Your task to perform on an android device: change the clock display to show seconds Image 0: 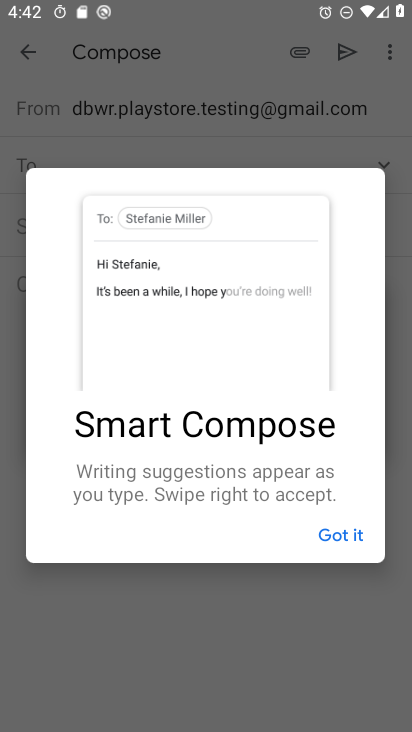
Step 0: press home button
Your task to perform on an android device: change the clock display to show seconds Image 1: 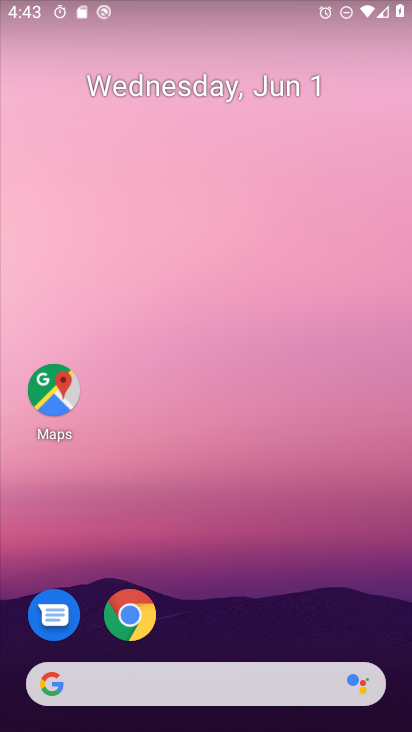
Step 1: drag from (266, 550) to (242, 155)
Your task to perform on an android device: change the clock display to show seconds Image 2: 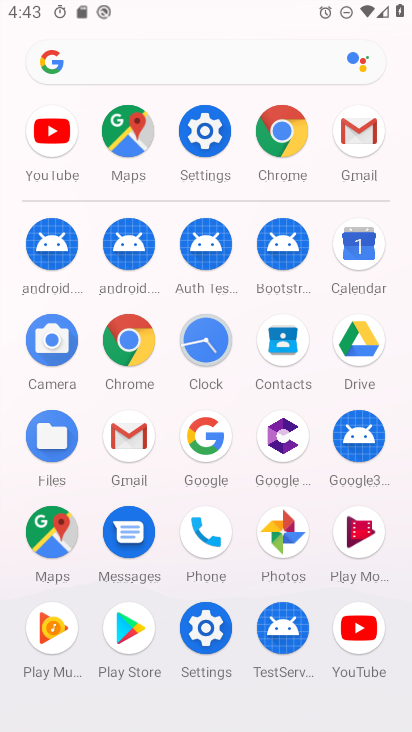
Step 2: click (199, 353)
Your task to perform on an android device: change the clock display to show seconds Image 3: 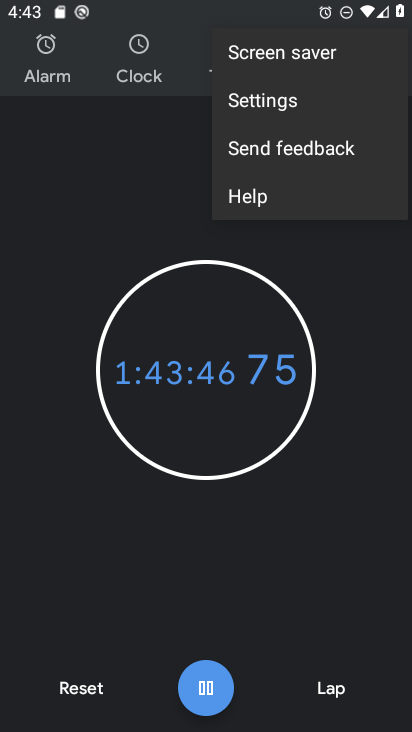
Step 3: click (134, 58)
Your task to perform on an android device: change the clock display to show seconds Image 4: 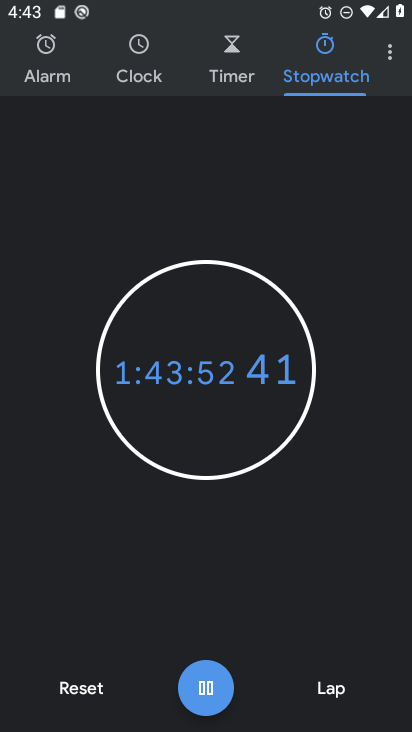
Step 4: click (135, 80)
Your task to perform on an android device: change the clock display to show seconds Image 5: 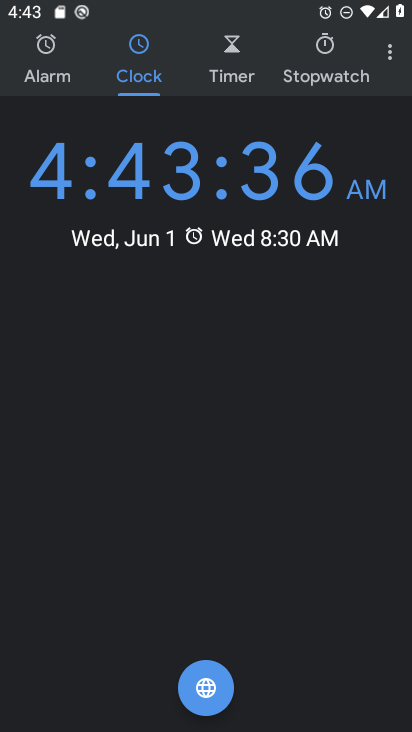
Step 5: click (388, 56)
Your task to perform on an android device: change the clock display to show seconds Image 6: 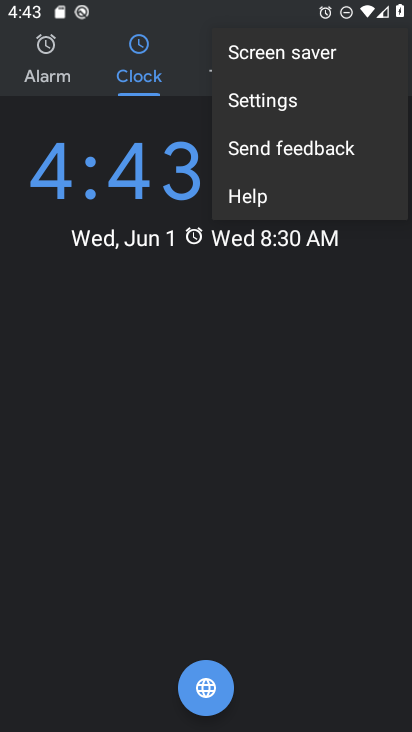
Step 6: click (301, 108)
Your task to perform on an android device: change the clock display to show seconds Image 7: 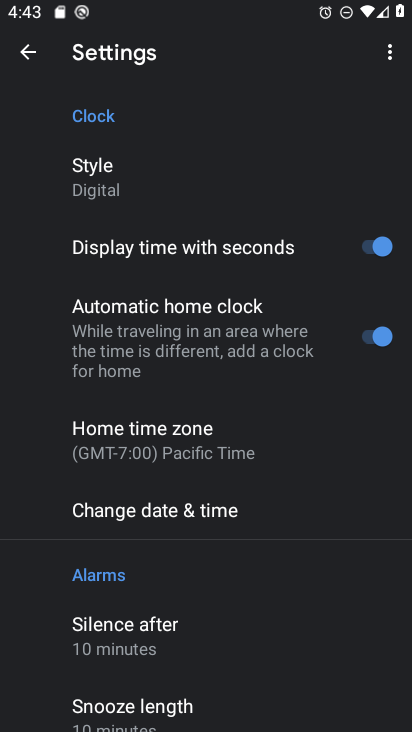
Step 7: drag from (259, 575) to (247, 327)
Your task to perform on an android device: change the clock display to show seconds Image 8: 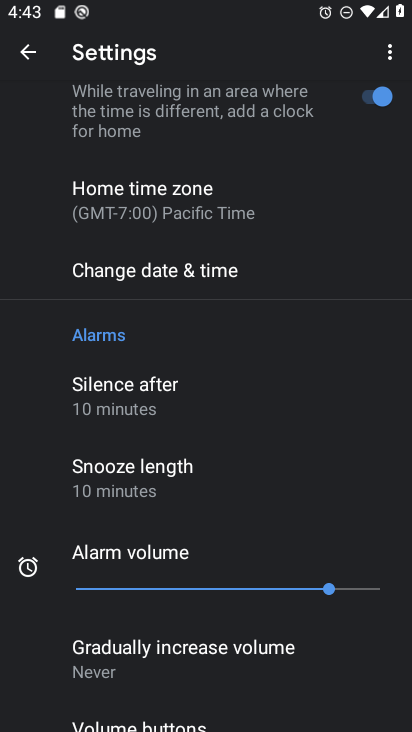
Step 8: drag from (297, 551) to (276, 301)
Your task to perform on an android device: change the clock display to show seconds Image 9: 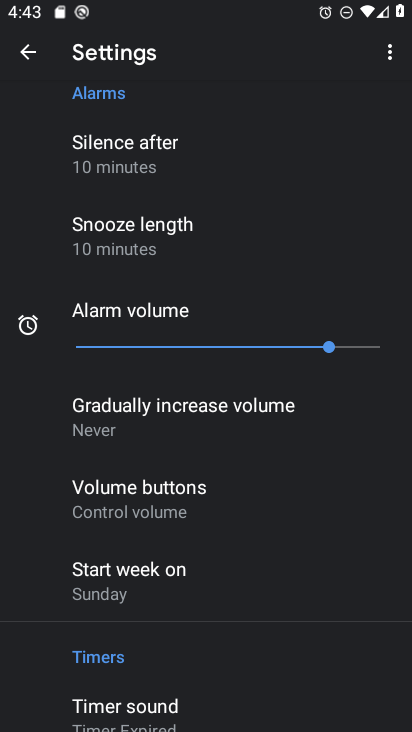
Step 9: drag from (266, 620) to (246, 364)
Your task to perform on an android device: change the clock display to show seconds Image 10: 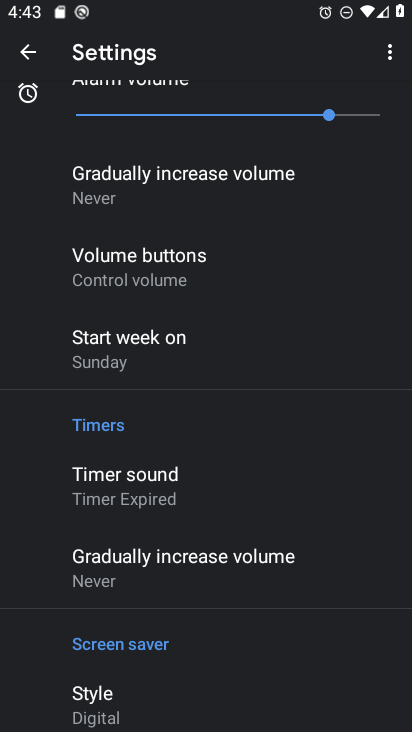
Step 10: drag from (284, 461) to (280, 277)
Your task to perform on an android device: change the clock display to show seconds Image 11: 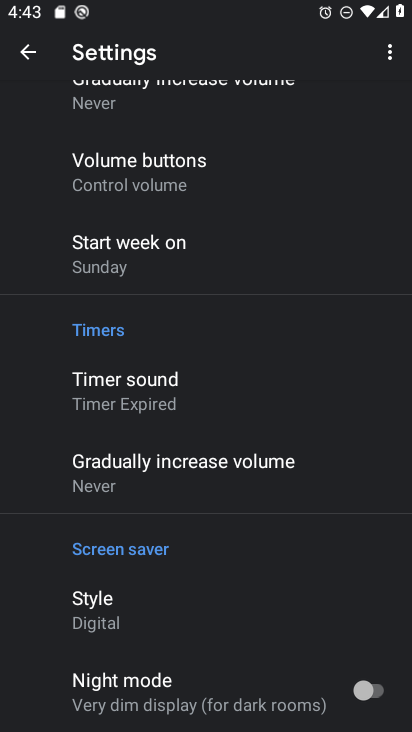
Step 11: drag from (278, 237) to (248, 497)
Your task to perform on an android device: change the clock display to show seconds Image 12: 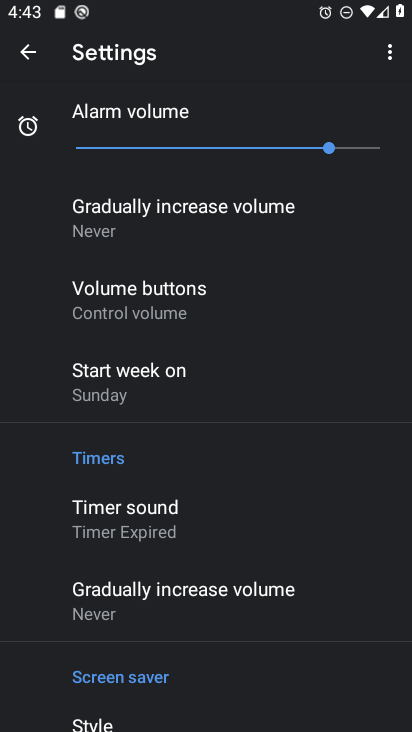
Step 12: drag from (232, 152) to (244, 484)
Your task to perform on an android device: change the clock display to show seconds Image 13: 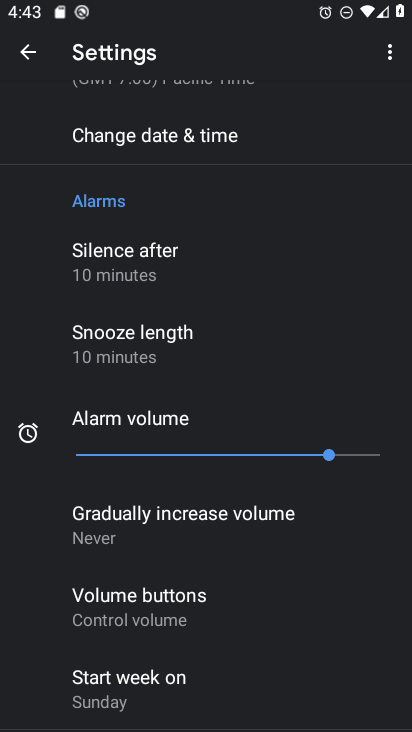
Step 13: drag from (233, 203) to (234, 488)
Your task to perform on an android device: change the clock display to show seconds Image 14: 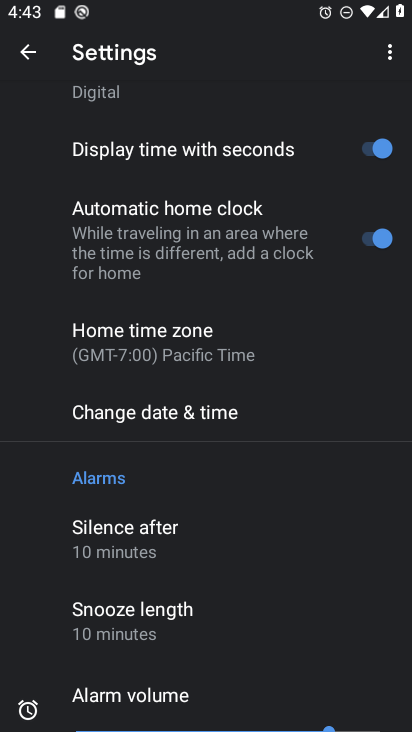
Step 14: drag from (215, 211) to (201, 508)
Your task to perform on an android device: change the clock display to show seconds Image 15: 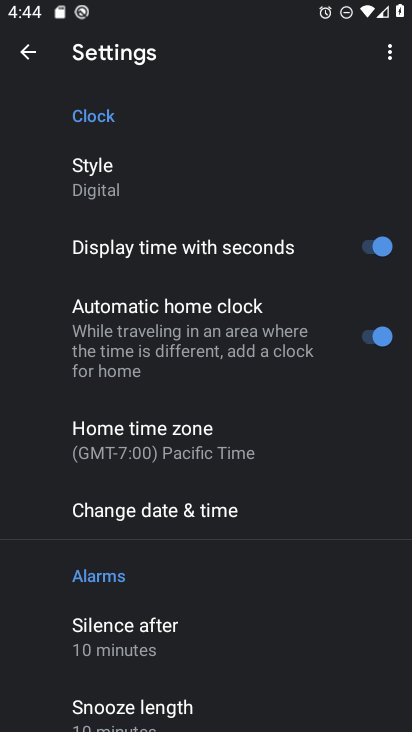
Step 15: click (129, 184)
Your task to perform on an android device: change the clock display to show seconds Image 16: 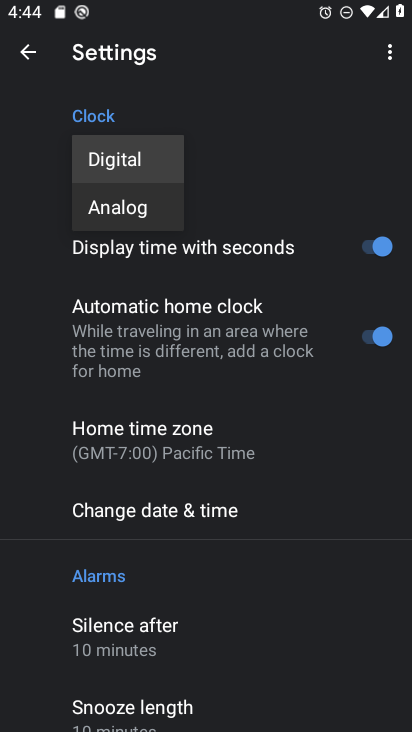
Step 16: click (149, 217)
Your task to perform on an android device: change the clock display to show seconds Image 17: 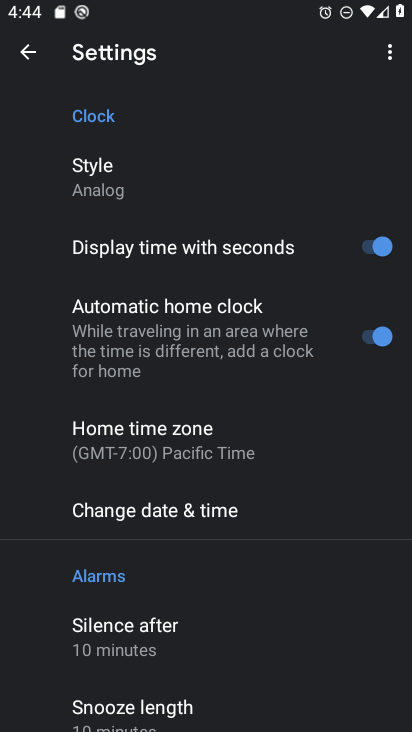
Step 17: task complete